Your task to perform on an android device: Go to Yahoo.com Image 0: 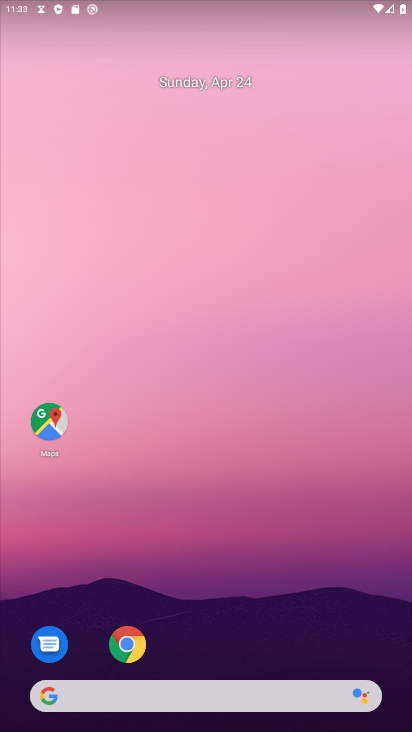
Step 0: click (128, 646)
Your task to perform on an android device: Go to Yahoo.com Image 1: 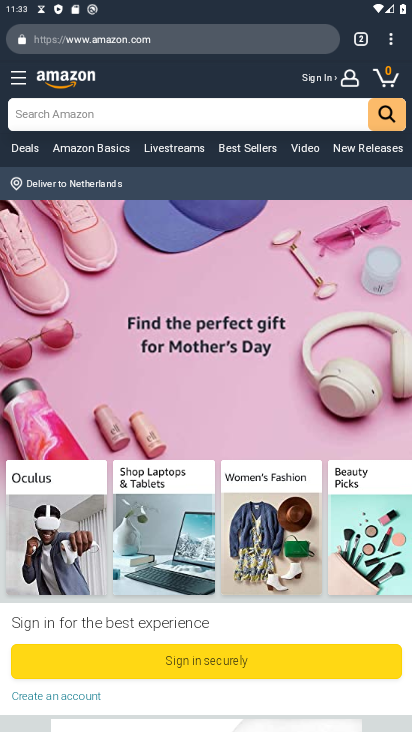
Step 1: click (171, 37)
Your task to perform on an android device: Go to Yahoo.com Image 2: 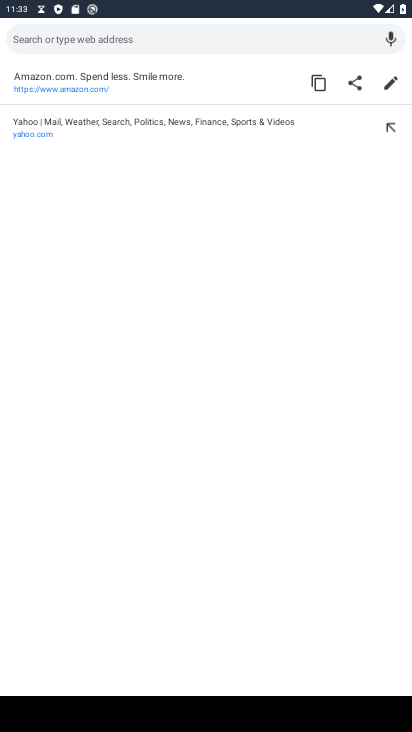
Step 2: type "yahoo.com"
Your task to perform on an android device: Go to Yahoo.com Image 3: 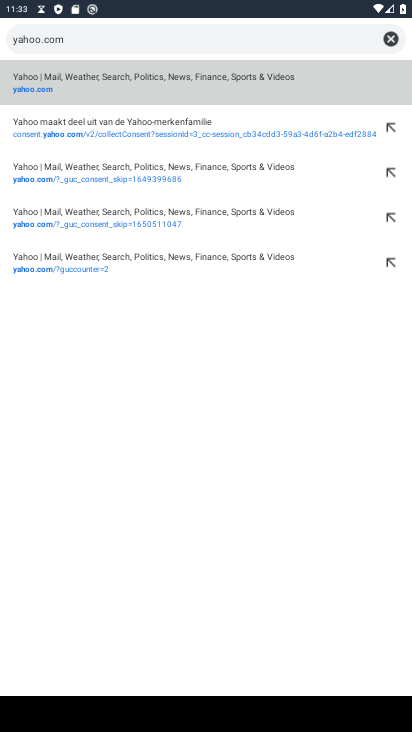
Step 3: click (35, 94)
Your task to perform on an android device: Go to Yahoo.com Image 4: 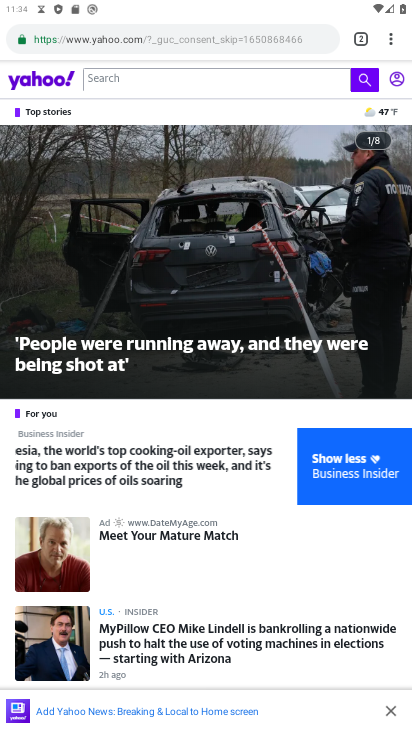
Step 4: task complete